Your task to perform on an android device: Open a new window in the chrome app Image 0: 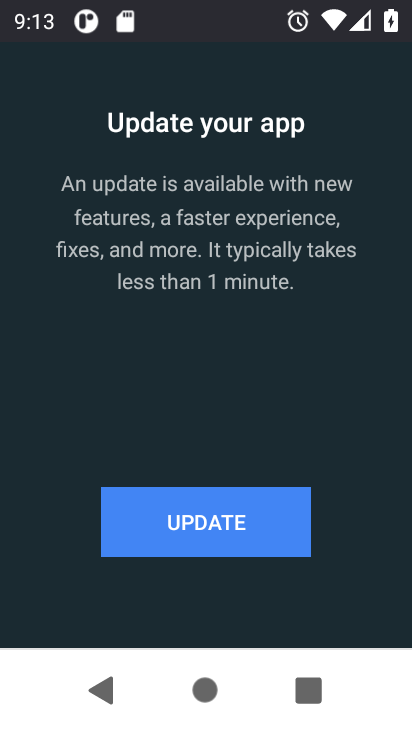
Step 0: press home button
Your task to perform on an android device: Open a new window in the chrome app Image 1: 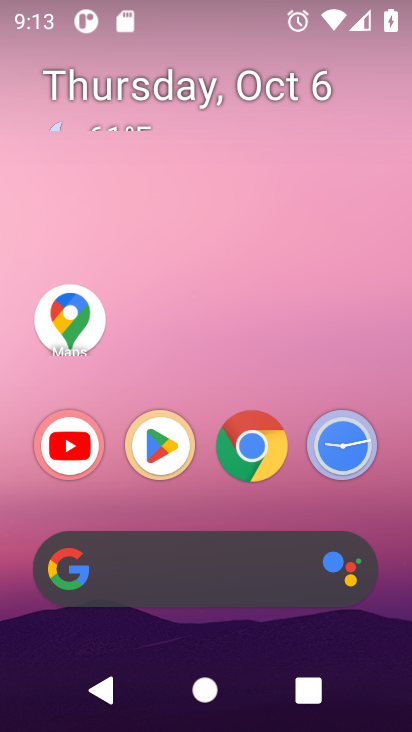
Step 1: click (267, 444)
Your task to perform on an android device: Open a new window in the chrome app Image 2: 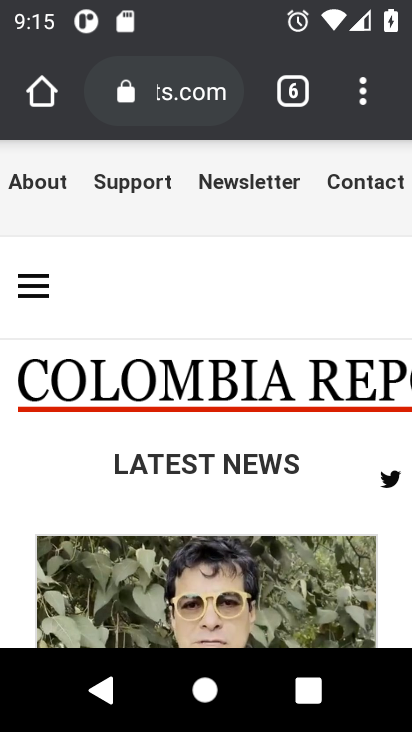
Step 2: click (293, 87)
Your task to perform on an android device: Open a new window in the chrome app Image 3: 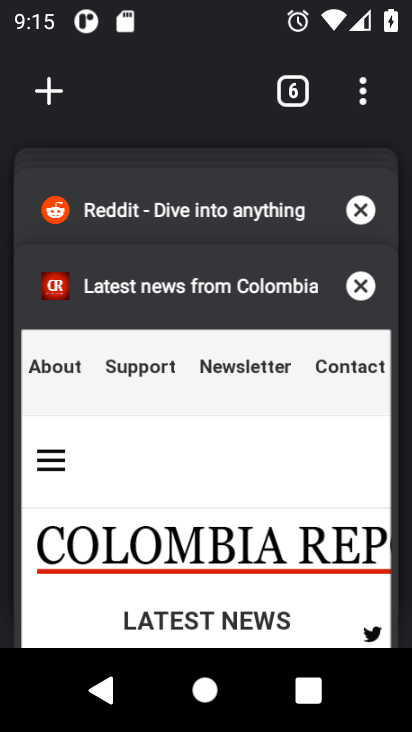
Step 3: click (30, 80)
Your task to perform on an android device: Open a new window in the chrome app Image 4: 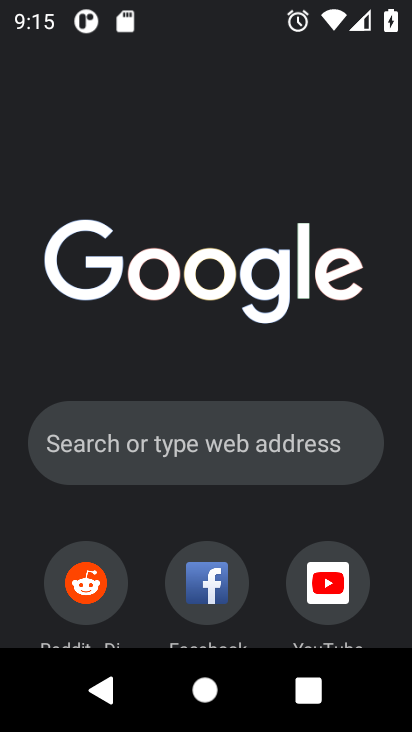
Step 4: task complete